Your task to perform on an android device: toggle airplane mode Image 0: 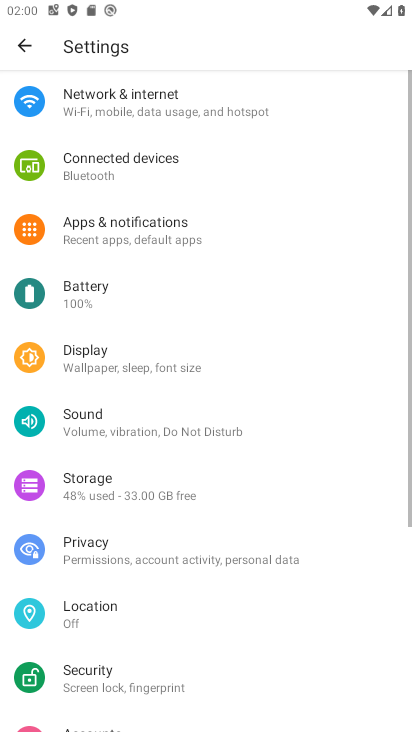
Step 0: press home button
Your task to perform on an android device: toggle airplane mode Image 1: 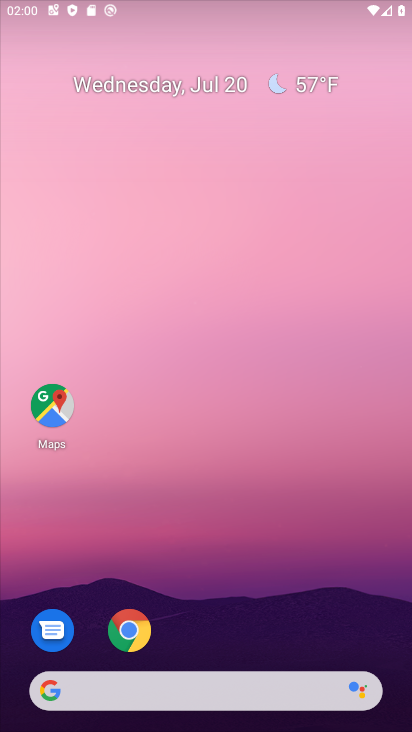
Step 1: drag from (263, 555) to (328, 37)
Your task to perform on an android device: toggle airplane mode Image 2: 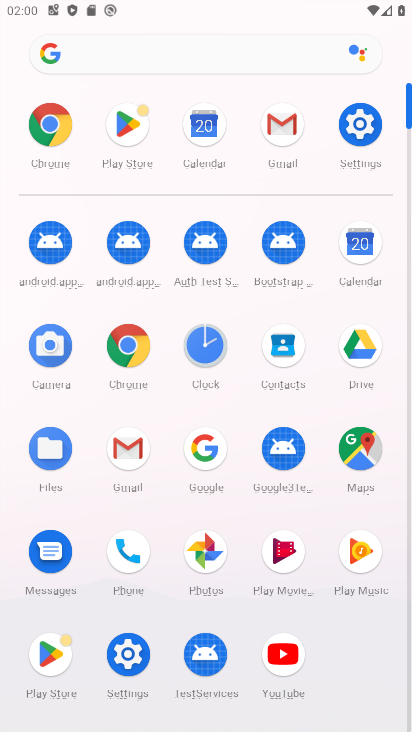
Step 2: click (369, 136)
Your task to perform on an android device: toggle airplane mode Image 3: 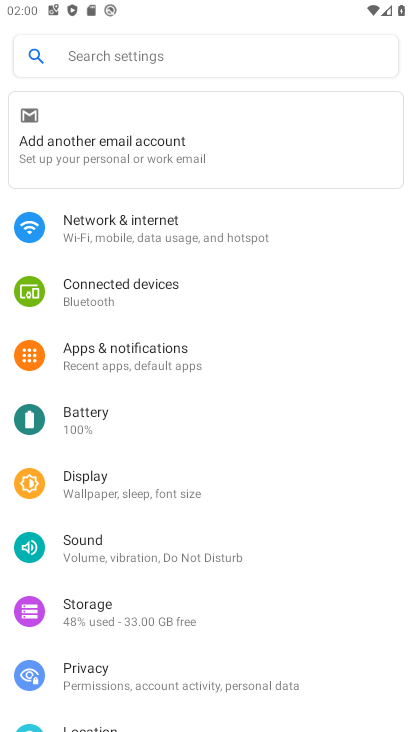
Step 3: click (206, 253)
Your task to perform on an android device: toggle airplane mode Image 4: 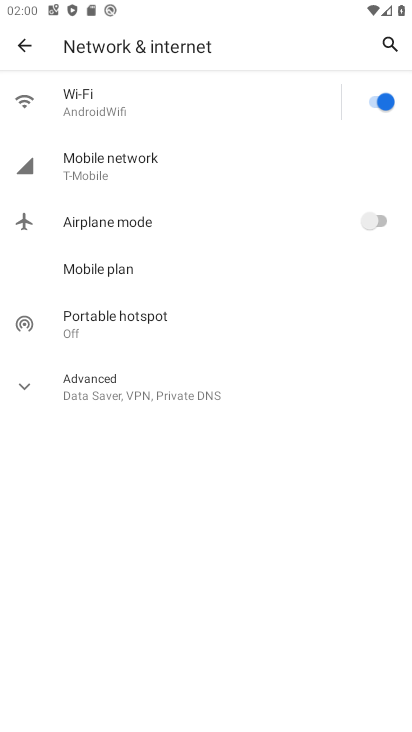
Step 4: click (370, 221)
Your task to perform on an android device: toggle airplane mode Image 5: 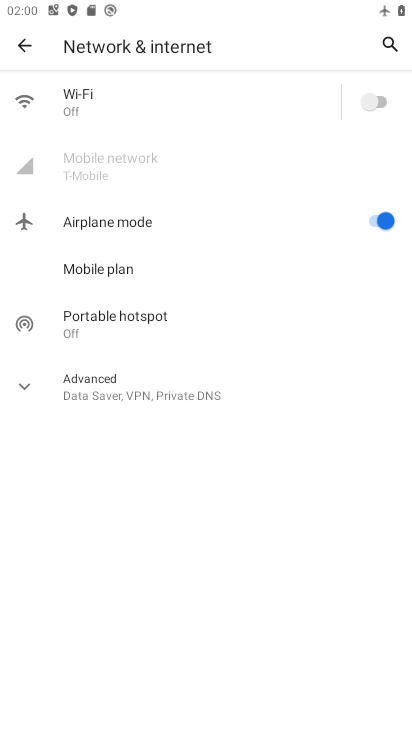
Step 5: task complete